Your task to perform on an android device: Open the web browser Image 0: 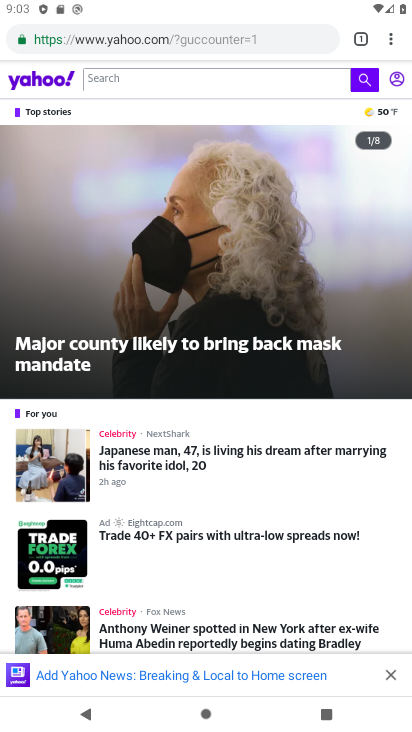
Step 0: task complete